Your task to perform on an android device: Show the shopping cart on amazon. Search for dell xps on amazon, select the first entry, add it to the cart, then select checkout. Image 0: 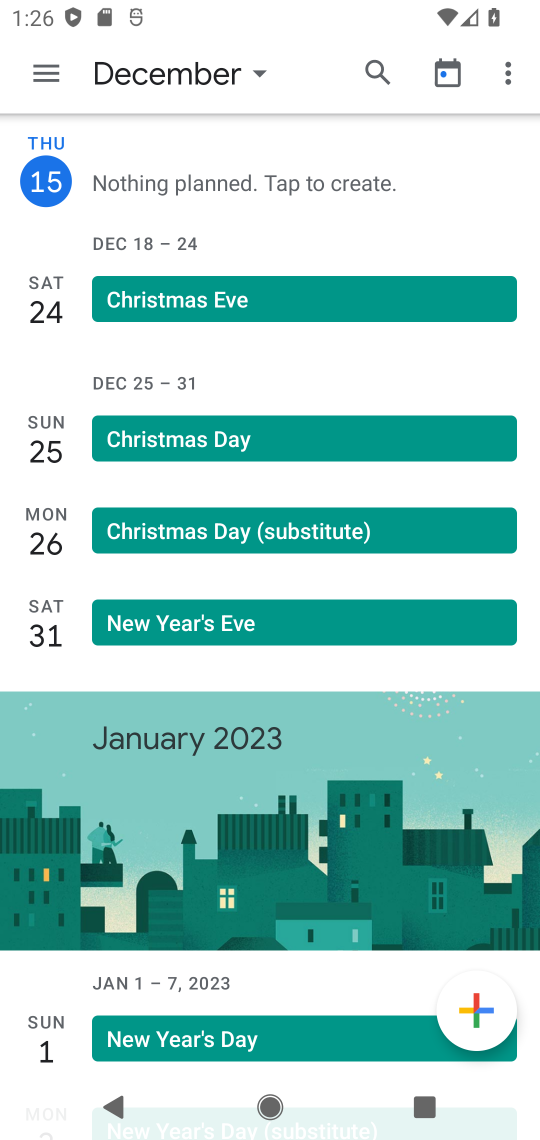
Step 0: press home button
Your task to perform on an android device: Show the shopping cart on amazon. Search for dell xps on amazon, select the first entry, add it to the cart, then select checkout. Image 1: 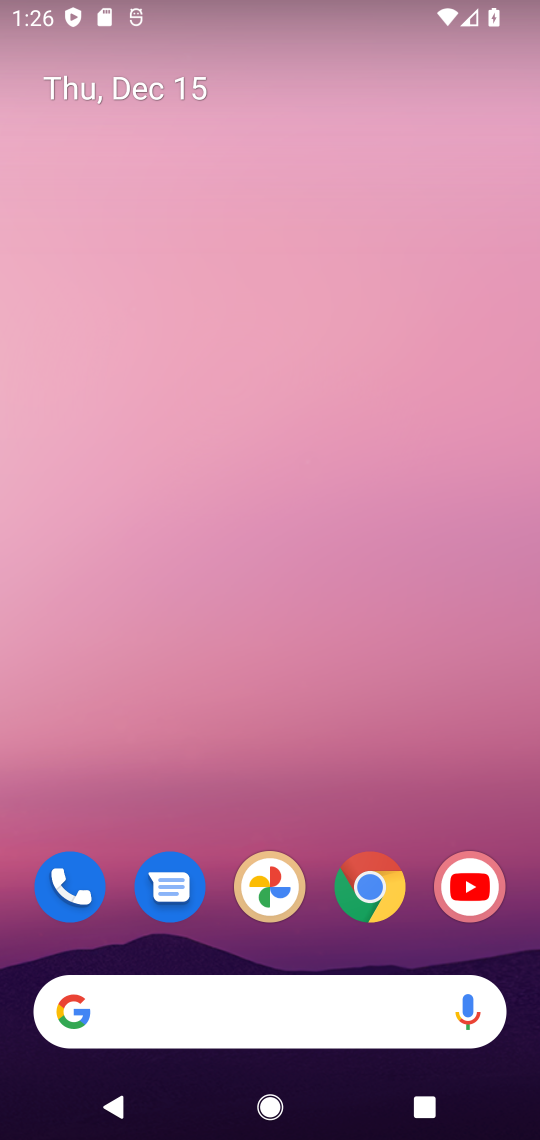
Step 1: click (373, 887)
Your task to perform on an android device: Show the shopping cart on amazon. Search for dell xps on amazon, select the first entry, add it to the cart, then select checkout. Image 2: 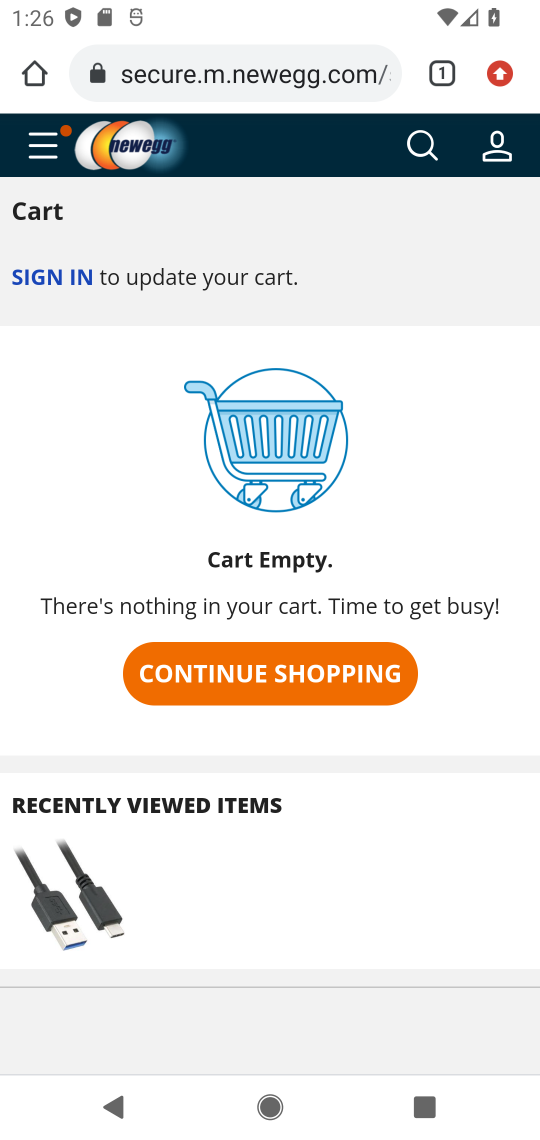
Step 2: click (200, 66)
Your task to perform on an android device: Show the shopping cart on amazon. Search for dell xps on amazon, select the first entry, add it to the cart, then select checkout. Image 3: 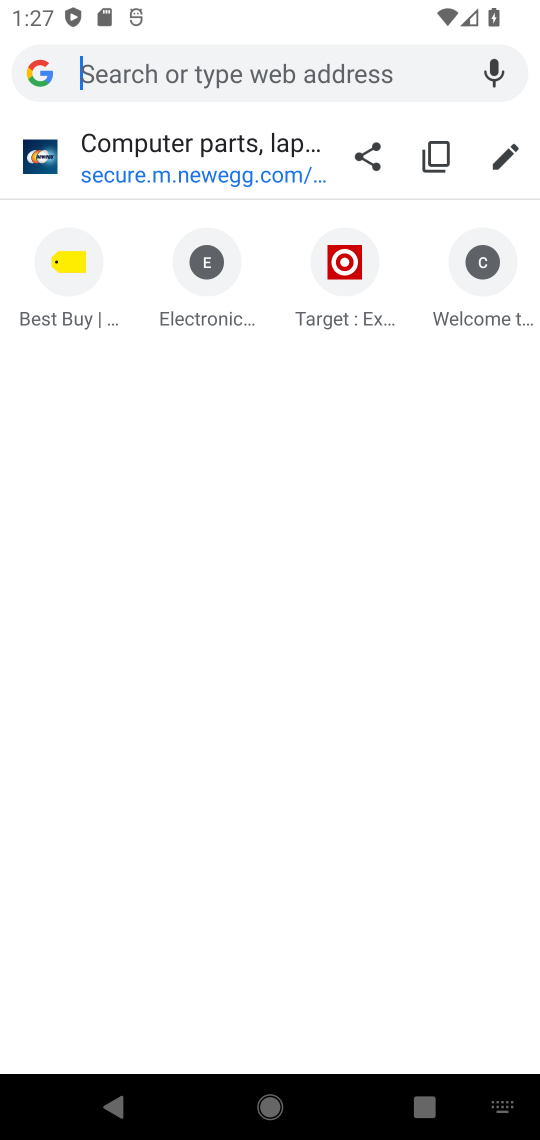
Step 3: type "amazon.com"
Your task to perform on an android device: Show the shopping cart on amazon. Search for dell xps on amazon, select the first entry, add it to the cart, then select checkout. Image 4: 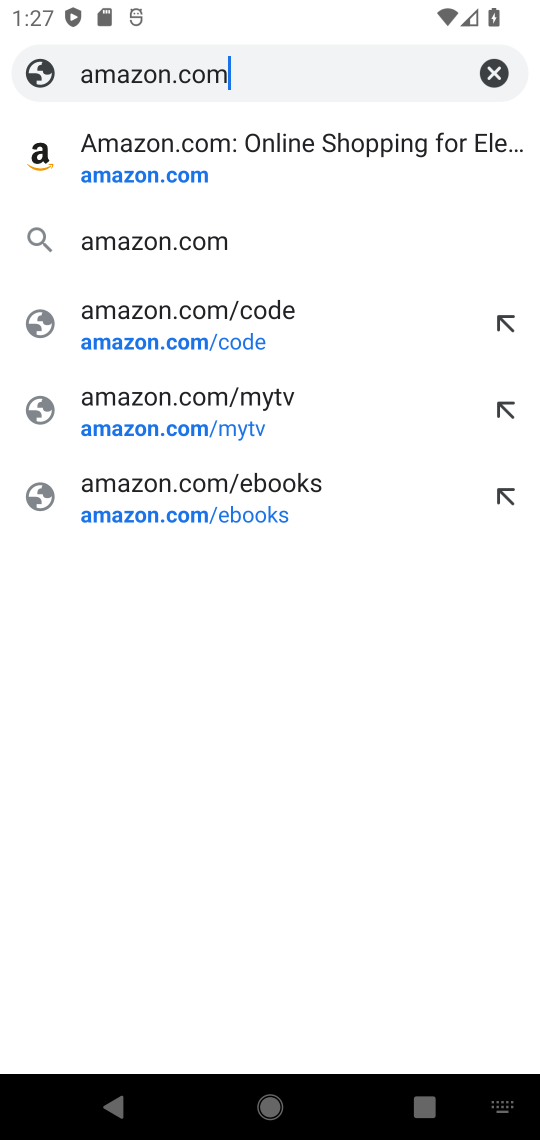
Step 4: click (168, 182)
Your task to perform on an android device: Show the shopping cart on amazon. Search for dell xps on amazon, select the first entry, add it to the cart, then select checkout. Image 5: 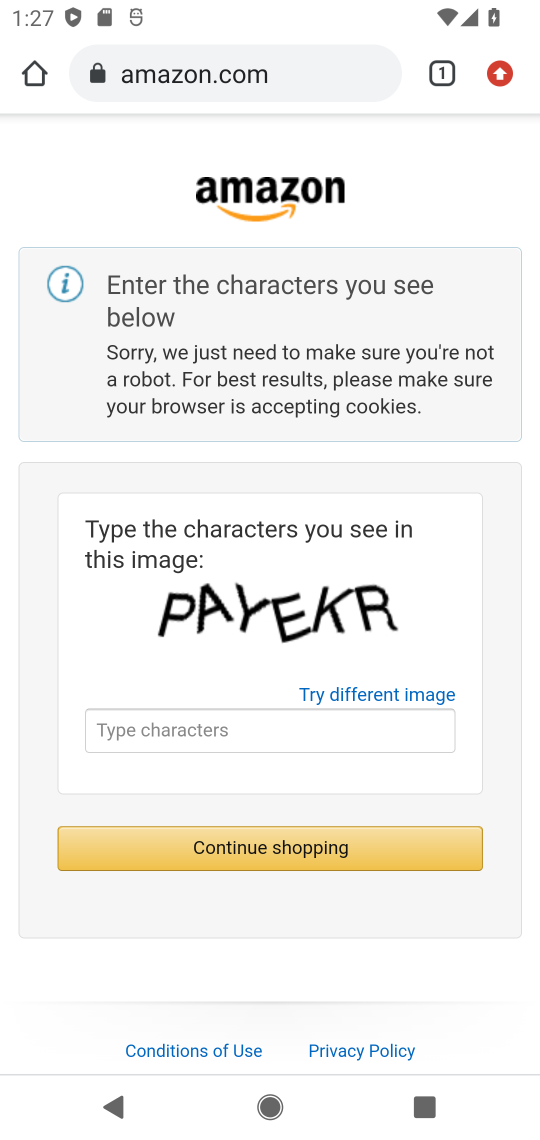
Step 5: click (135, 733)
Your task to perform on an android device: Show the shopping cart on amazon. Search for dell xps on amazon, select the first entry, add it to the cart, then select checkout. Image 6: 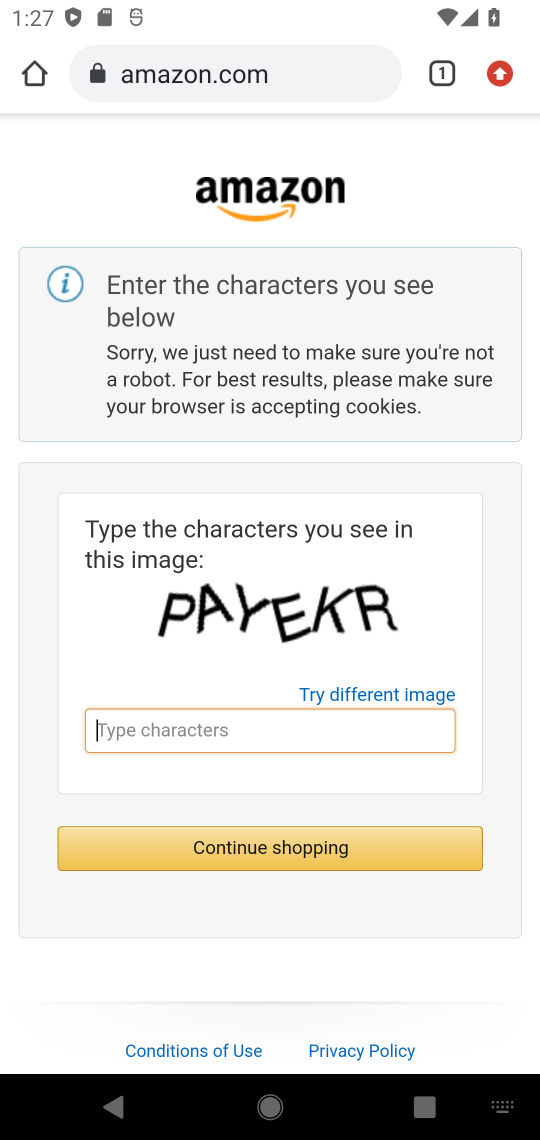
Step 6: type "PAYEKR"
Your task to perform on an android device: Show the shopping cart on amazon. Search for dell xps on amazon, select the first entry, add it to the cart, then select checkout. Image 7: 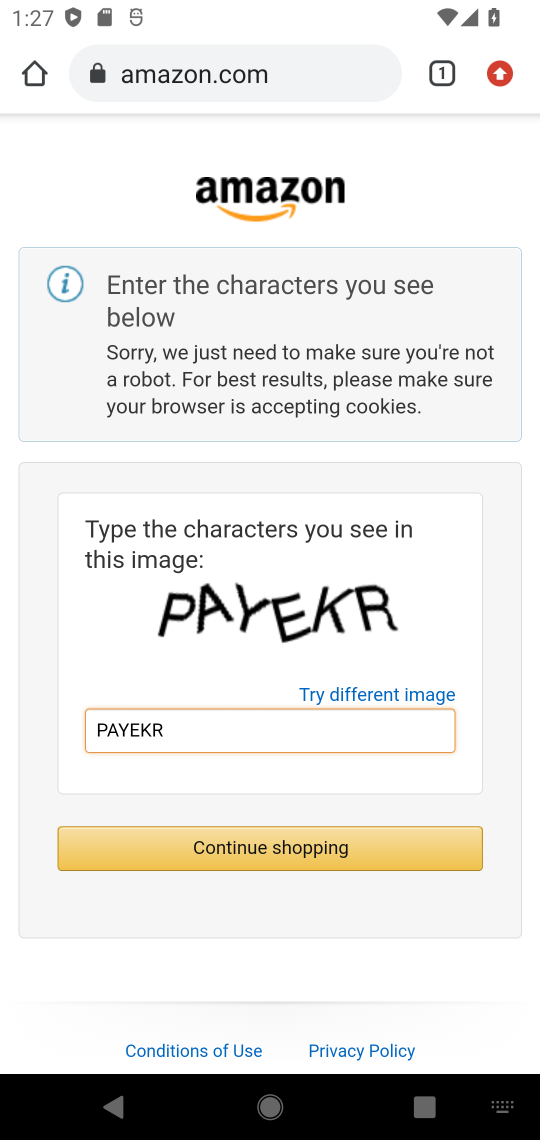
Step 7: click (340, 854)
Your task to perform on an android device: Show the shopping cart on amazon. Search for dell xps on amazon, select the first entry, add it to the cart, then select checkout. Image 8: 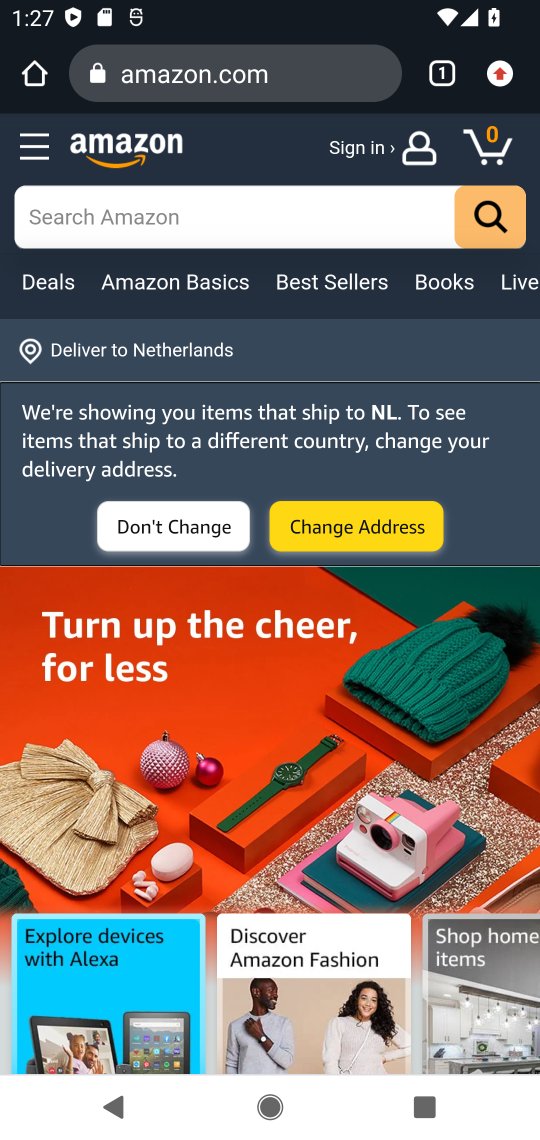
Step 8: click (487, 141)
Your task to perform on an android device: Show the shopping cart on amazon. Search for dell xps on amazon, select the first entry, add it to the cart, then select checkout. Image 9: 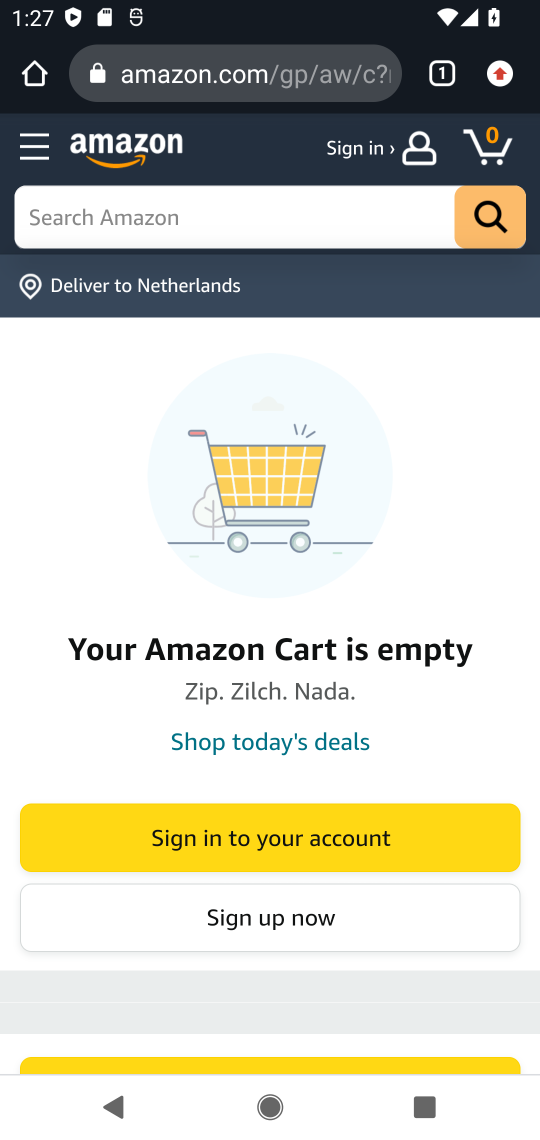
Step 9: click (156, 229)
Your task to perform on an android device: Show the shopping cart on amazon. Search for dell xps on amazon, select the first entry, add it to the cart, then select checkout. Image 10: 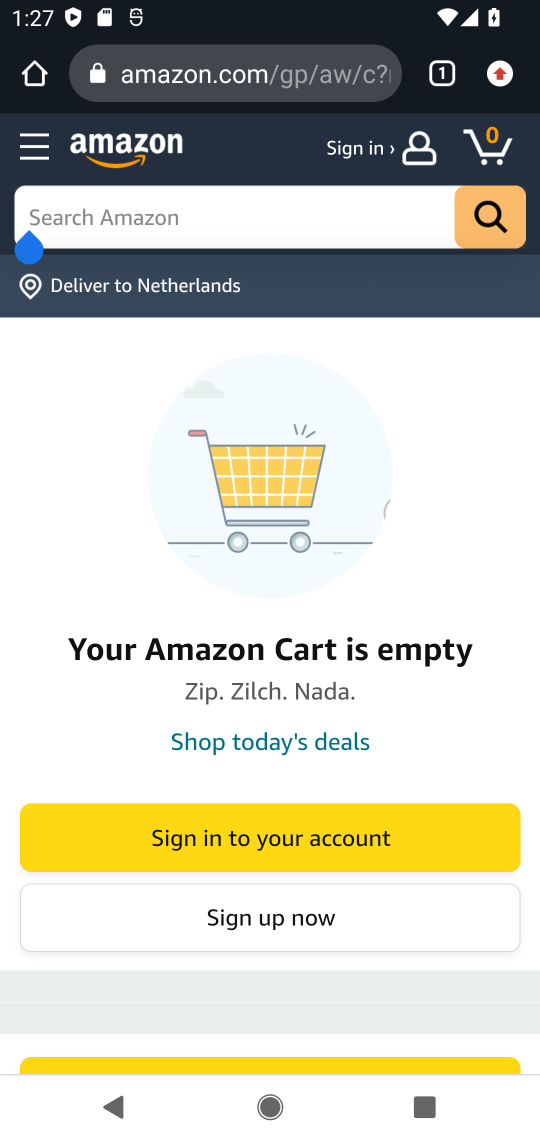
Step 10: click (67, 224)
Your task to perform on an android device: Show the shopping cart on amazon. Search for dell xps on amazon, select the first entry, add it to the cart, then select checkout. Image 11: 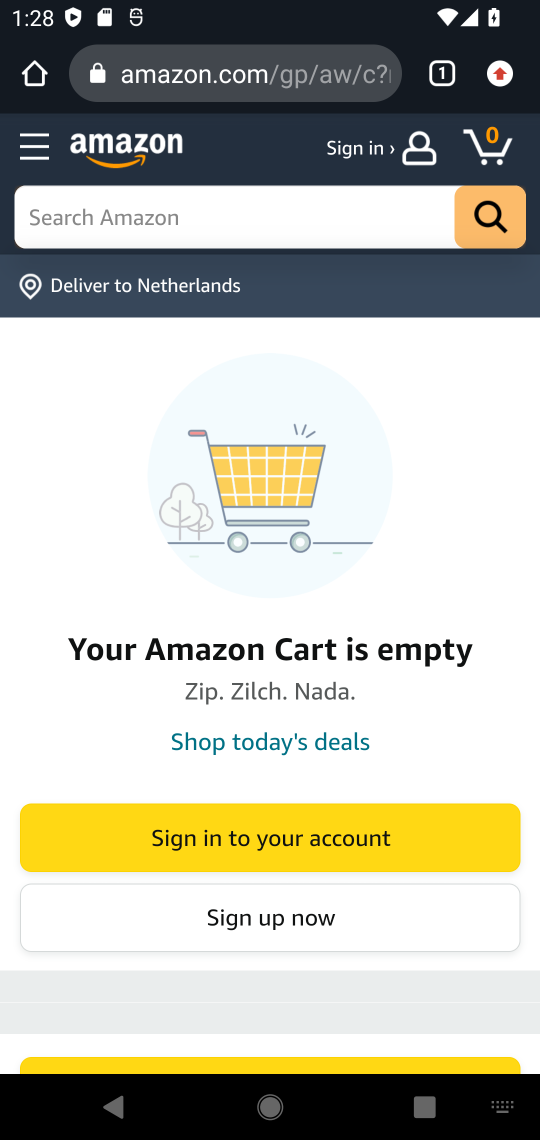
Step 11: type "dell xps"
Your task to perform on an android device: Show the shopping cart on amazon. Search for dell xps on amazon, select the first entry, add it to the cart, then select checkout. Image 12: 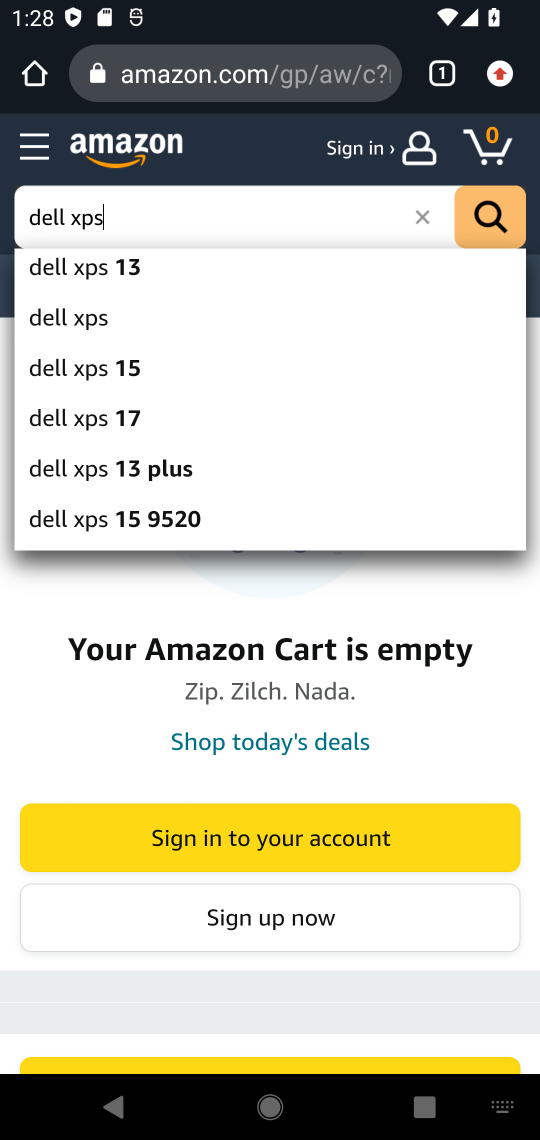
Step 12: click (77, 320)
Your task to perform on an android device: Show the shopping cart on amazon. Search for dell xps on amazon, select the first entry, add it to the cart, then select checkout. Image 13: 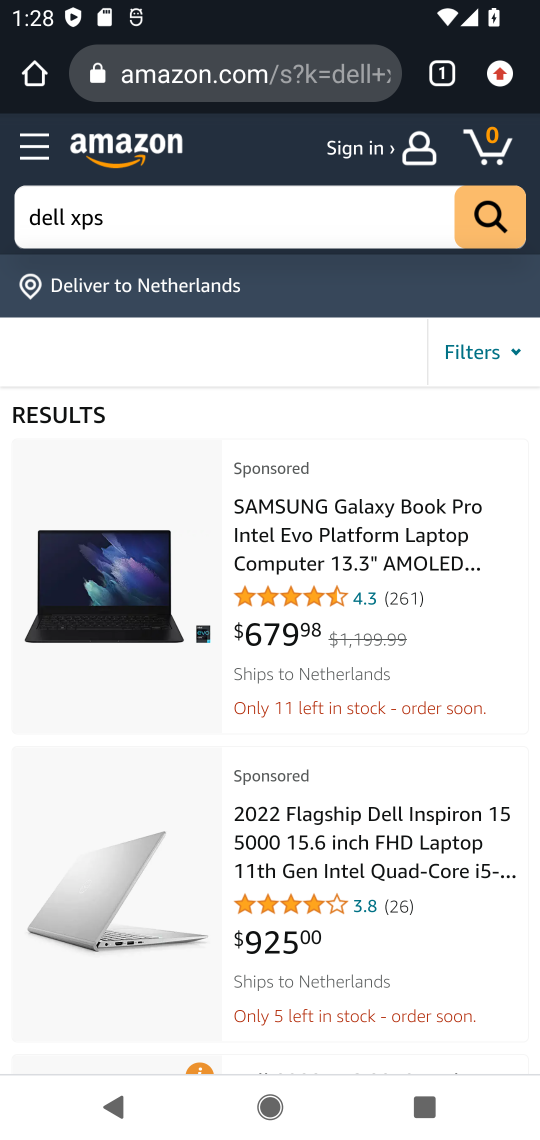
Step 13: task complete